Your task to perform on an android device: Open the calendar app, open the side menu, and click the "Day" option Image 0: 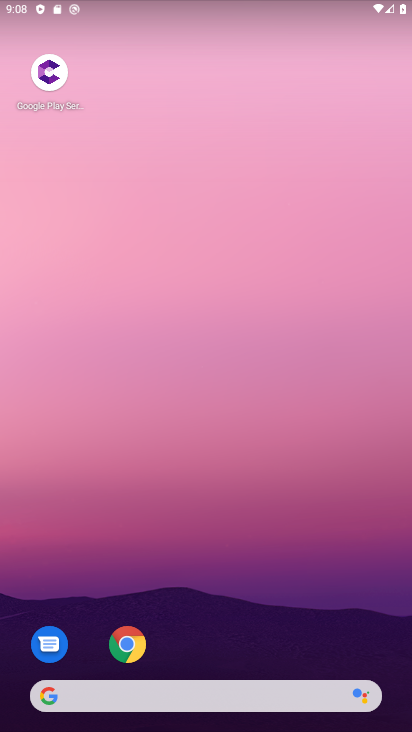
Step 0: drag from (226, 654) to (182, 57)
Your task to perform on an android device: Open the calendar app, open the side menu, and click the "Day" option Image 1: 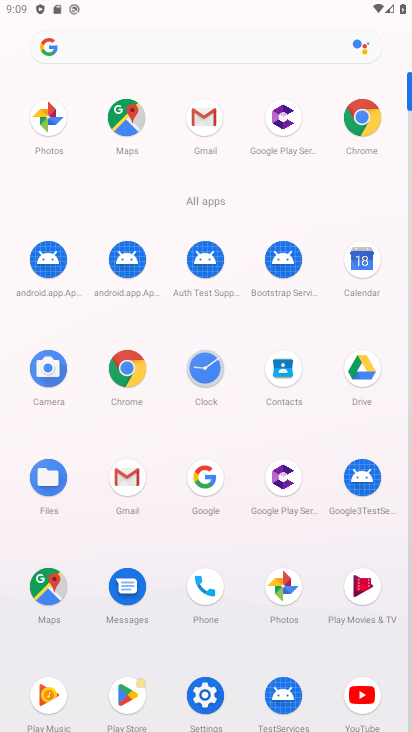
Step 1: click (374, 268)
Your task to perform on an android device: Open the calendar app, open the side menu, and click the "Day" option Image 2: 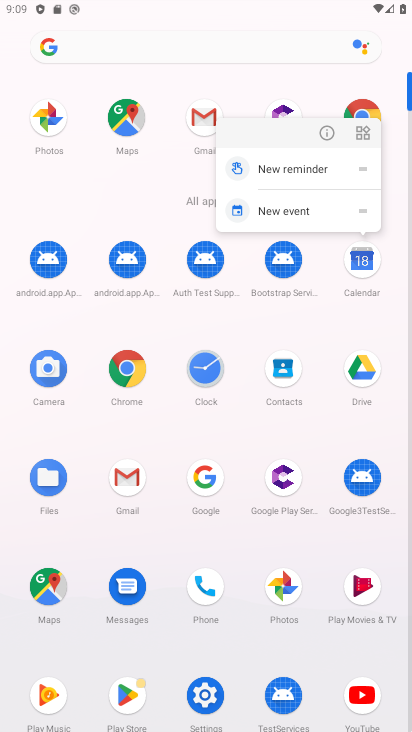
Step 2: click (366, 271)
Your task to perform on an android device: Open the calendar app, open the side menu, and click the "Day" option Image 3: 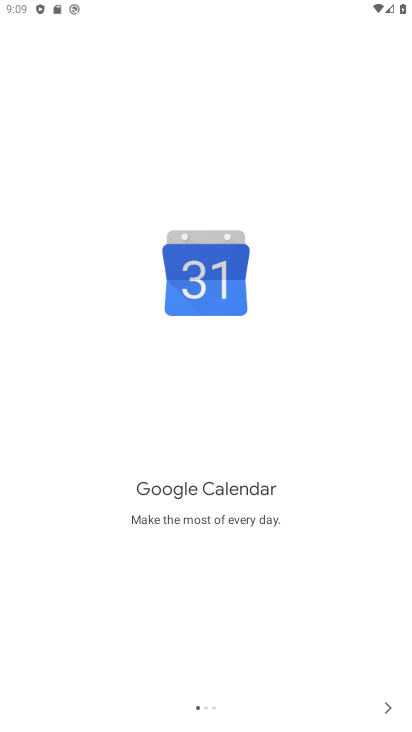
Step 3: click (382, 713)
Your task to perform on an android device: Open the calendar app, open the side menu, and click the "Day" option Image 4: 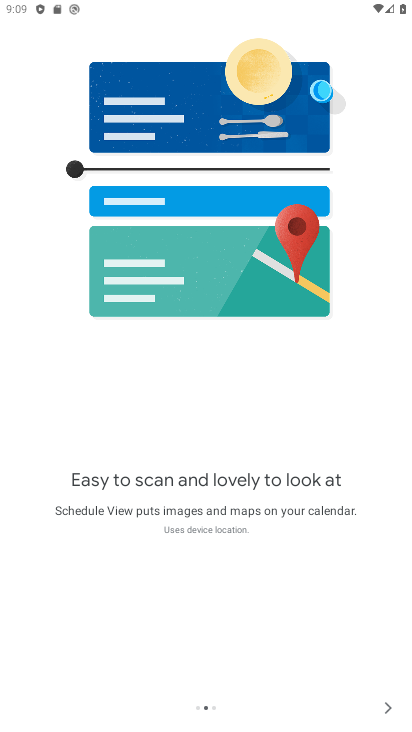
Step 4: click (381, 711)
Your task to perform on an android device: Open the calendar app, open the side menu, and click the "Day" option Image 5: 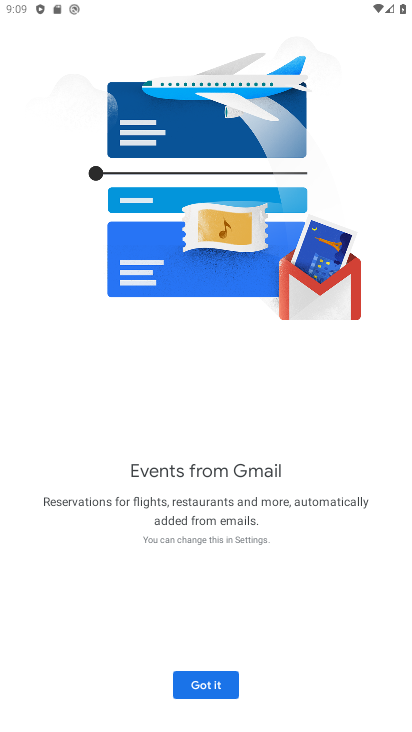
Step 5: click (208, 683)
Your task to perform on an android device: Open the calendar app, open the side menu, and click the "Day" option Image 6: 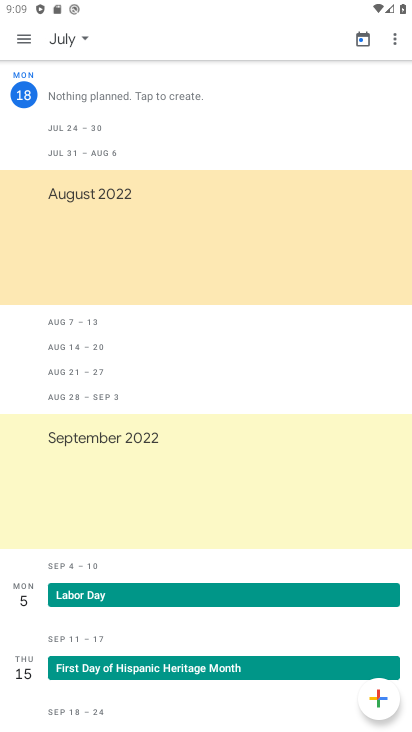
Step 6: click (14, 33)
Your task to perform on an android device: Open the calendar app, open the side menu, and click the "Day" option Image 7: 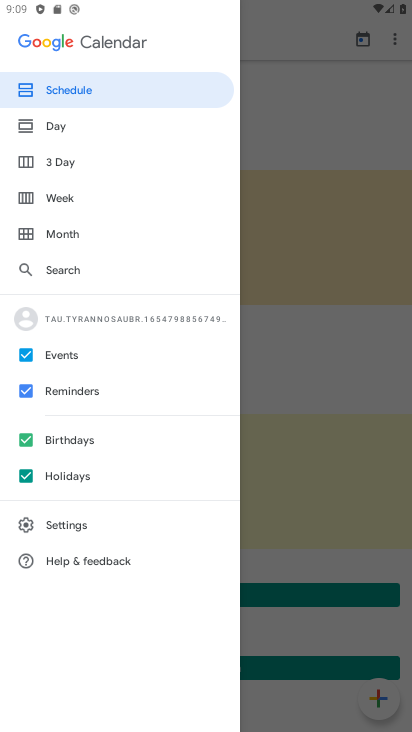
Step 7: click (47, 131)
Your task to perform on an android device: Open the calendar app, open the side menu, and click the "Day" option Image 8: 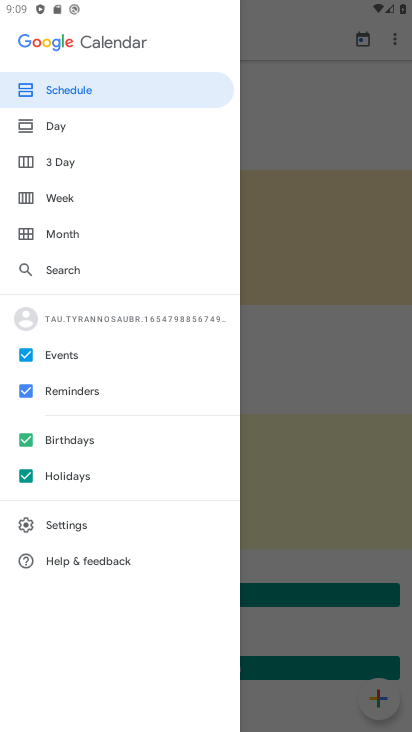
Step 8: click (46, 116)
Your task to perform on an android device: Open the calendar app, open the side menu, and click the "Day" option Image 9: 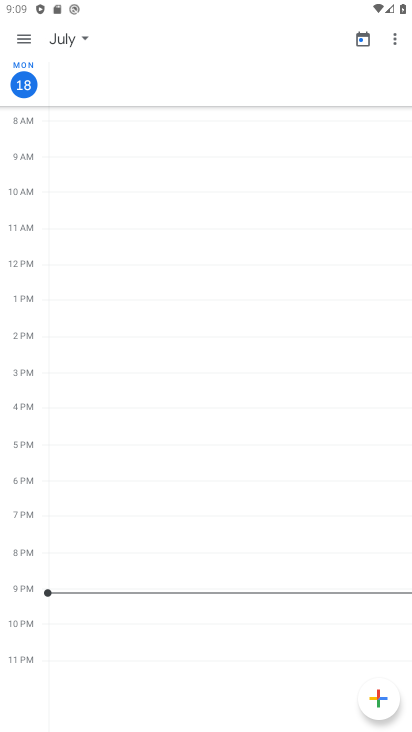
Step 9: task complete